Your task to perform on an android device: Open notification settings Image 0: 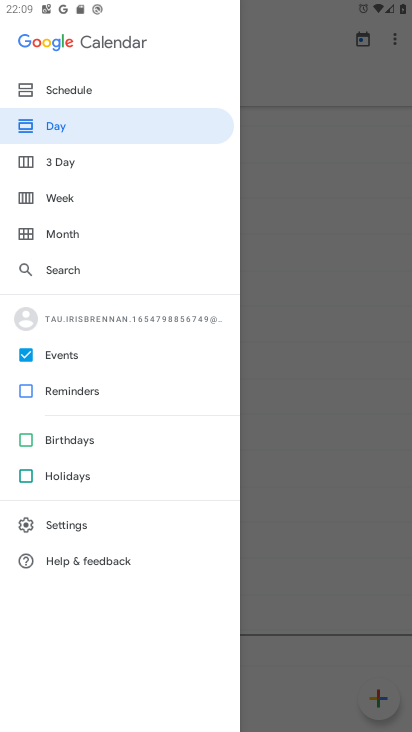
Step 0: press home button
Your task to perform on an android device: Open notification settings Image 1: 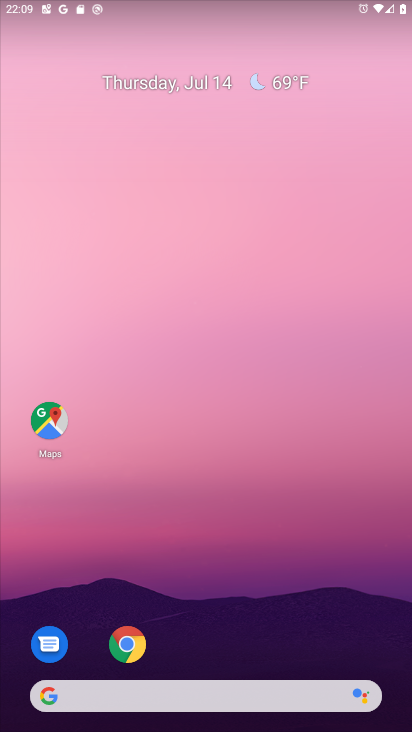
Step 1: drag from (179, 650) to (262, 14)
Your task to perform on an android device: Open notification settings Image 2: 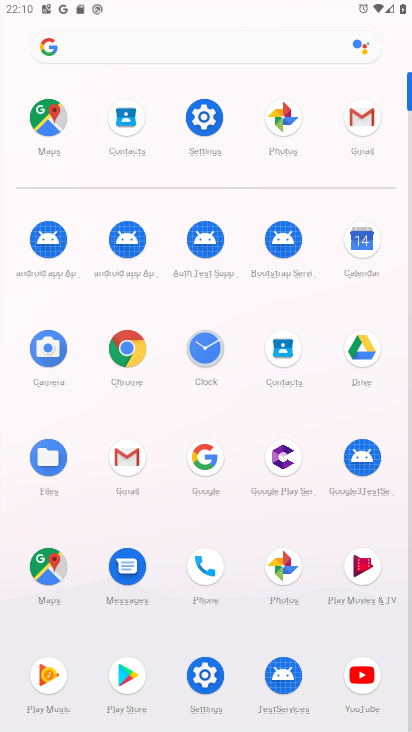
Step 2: click (207, 131)
Your task to perform on an android device: Open notification settings Image 3: 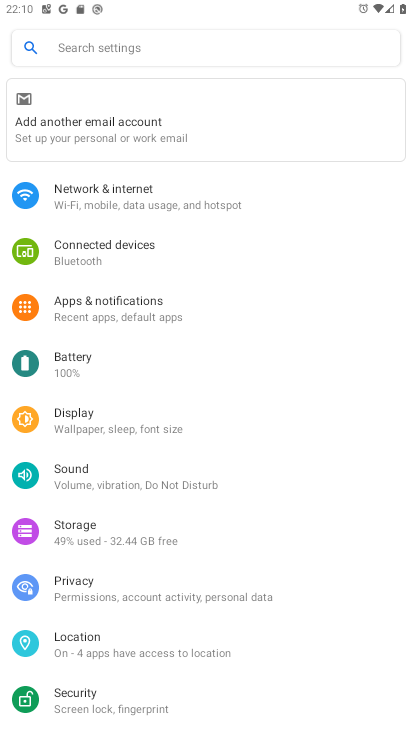
Step 3: click (147, 299)
Your task to perform on an android device: Open notification settings Image 4: 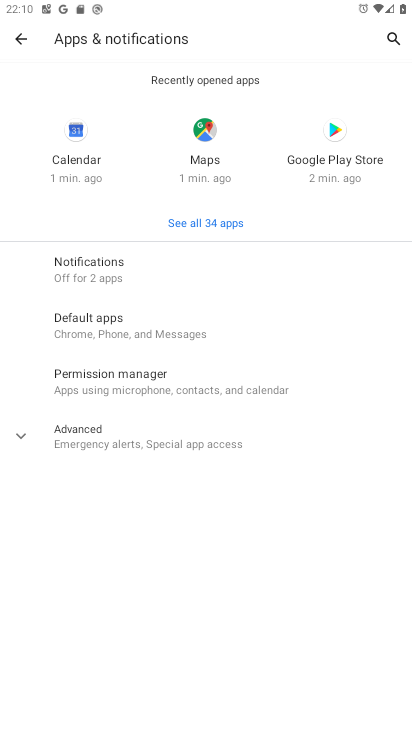
Step 4: task complete